Your task to perform on an android device: see sites visited before in the chrome app Image 0: 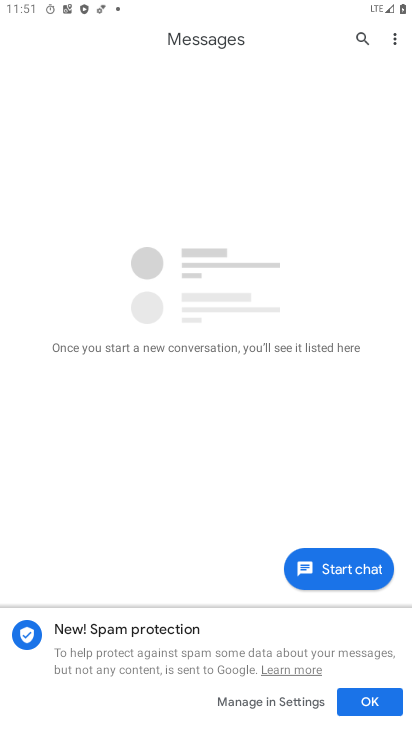
Step 0: drag from (273, 517) to (358, 175)
Your task to perform on an android device: see sites visited before in the chrome app Image 1: 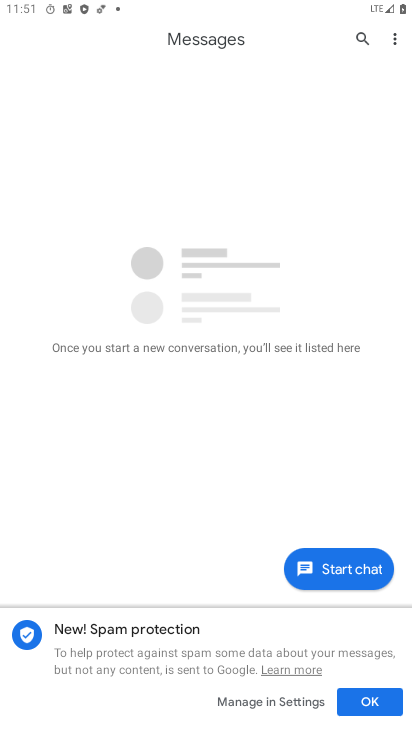
Step 1: drag from (249, 439) to (292, 260)
Your task to perform on an android device: see sites visited before in the chrome app Image 2: 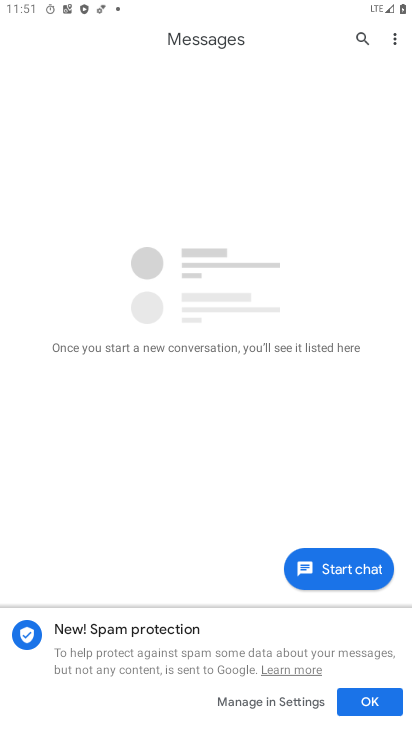
Step 2: press home button
Your task to perform on an android device: see sites visited before in the chrome app Image 3: 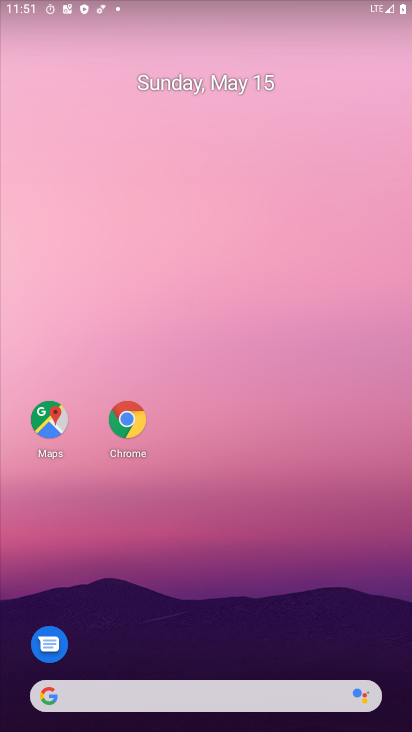
Step 3: drag from (217, 414) to (218, 129)
Your task to perform on an android device: see sites visited before in the chrome app Image 4: 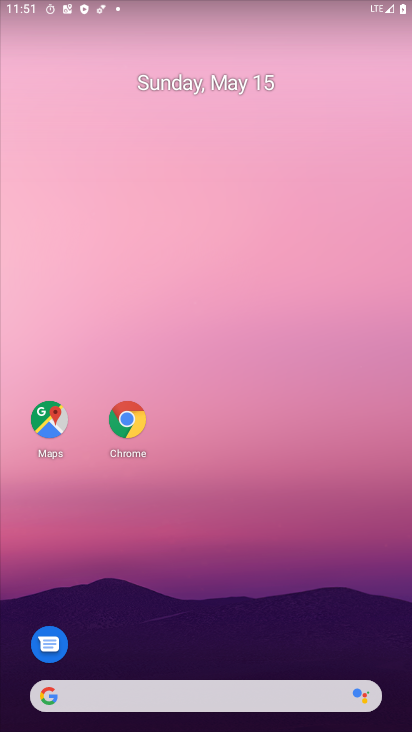
Step 4: drag from (189, 660) to (244, 140)
Your task to perform on an android device: see sites visited before in the chrome app Image 5: 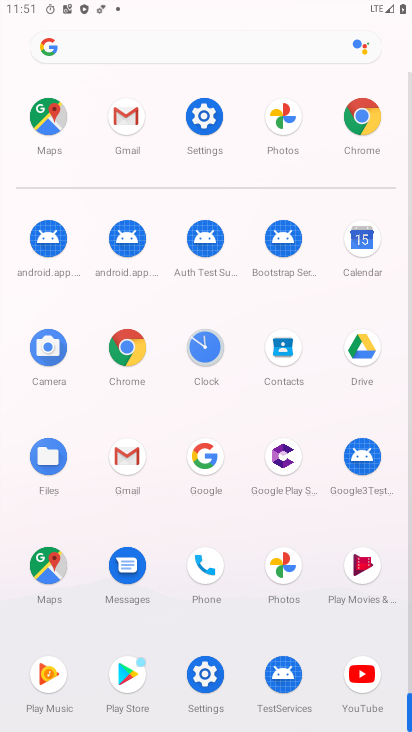
Step 5: click (116, 344)
Your task to perform on an android device: see sites visited before in the chrome app Image 6: 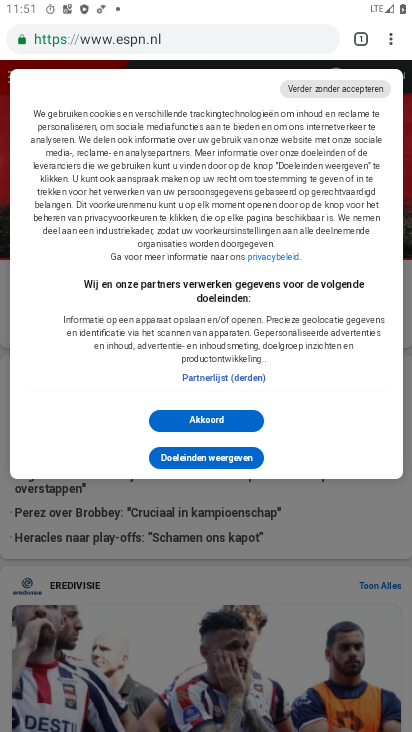
Step 6: click (390, 37)
Your task to perform on an android device: see sites visited before in the chrome app Image 7: 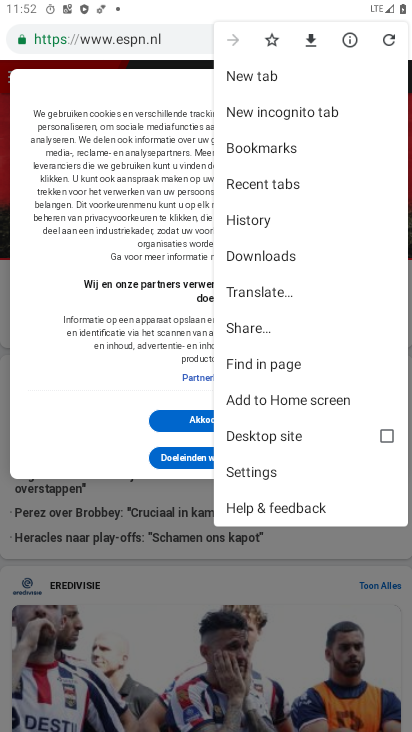
Step 7: click (264, 478)
Your task to perform on an android device: see sites visited before in the chrome app Image 8: 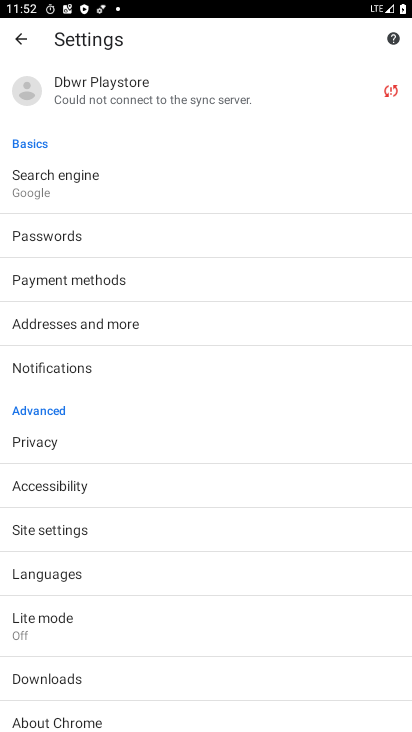
Step 8: drag from (167, 640) to (236, 256)
Your task to perform on an android device: see sites visited before in the chrome app Image 9: 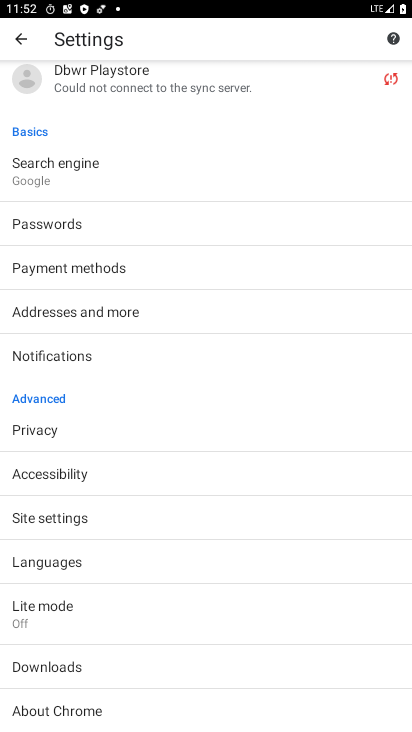
Step 9: drag from (175, 623) to (184, 423)
Your task to perform on an android device: see sites visited before in the chrome app Image 10: 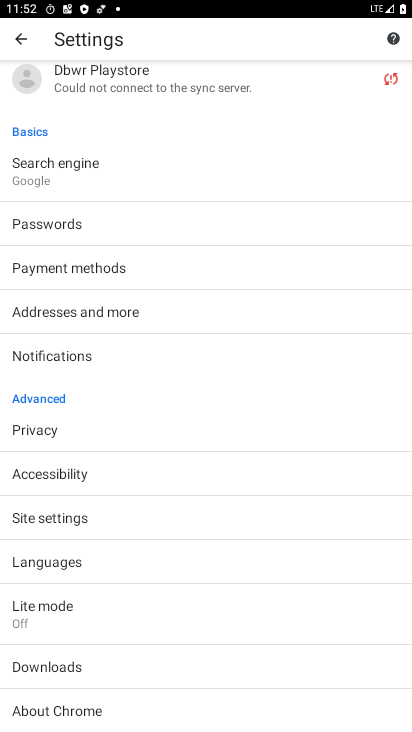
Step 10: click (26, 29)
Your task to perform on an android device: see sites visited before in the chrome app Image 11: 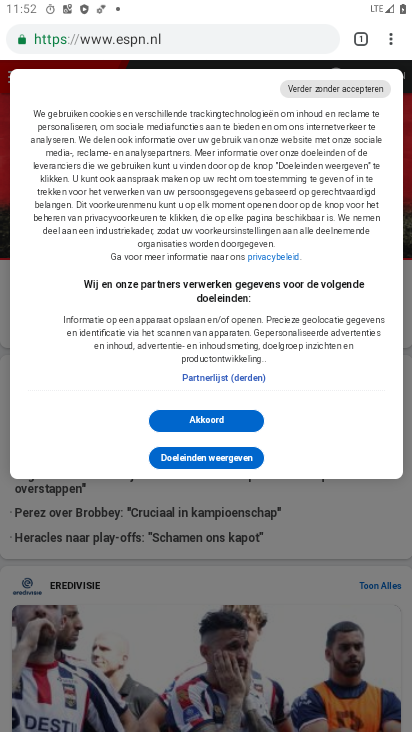
Step 11: task complete